Your task to perform on an android device: check storage Image 0: 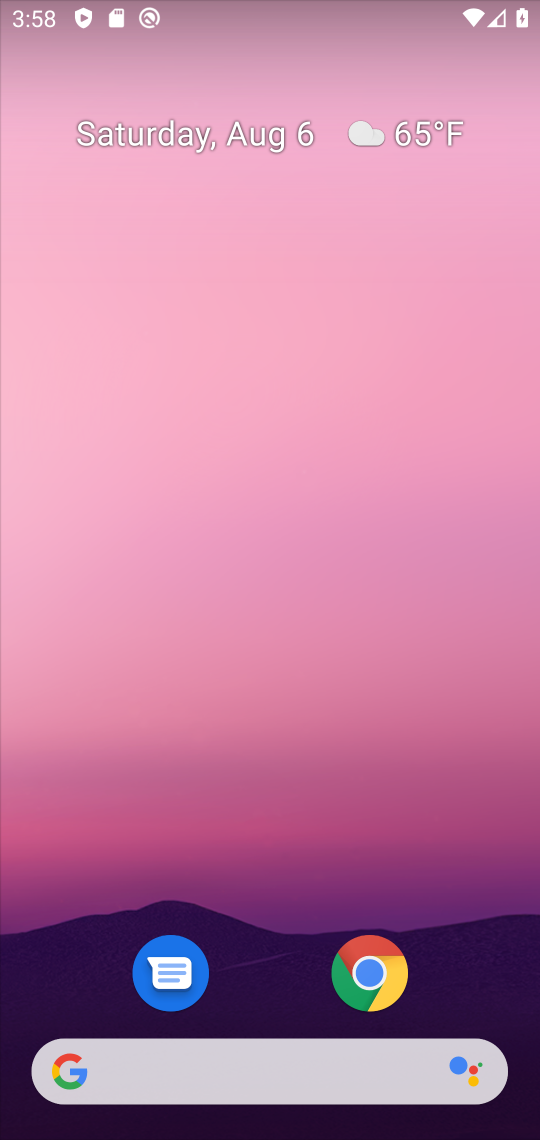
Step 0: press home button
Your task to perform on an android device: check storage Image 1: 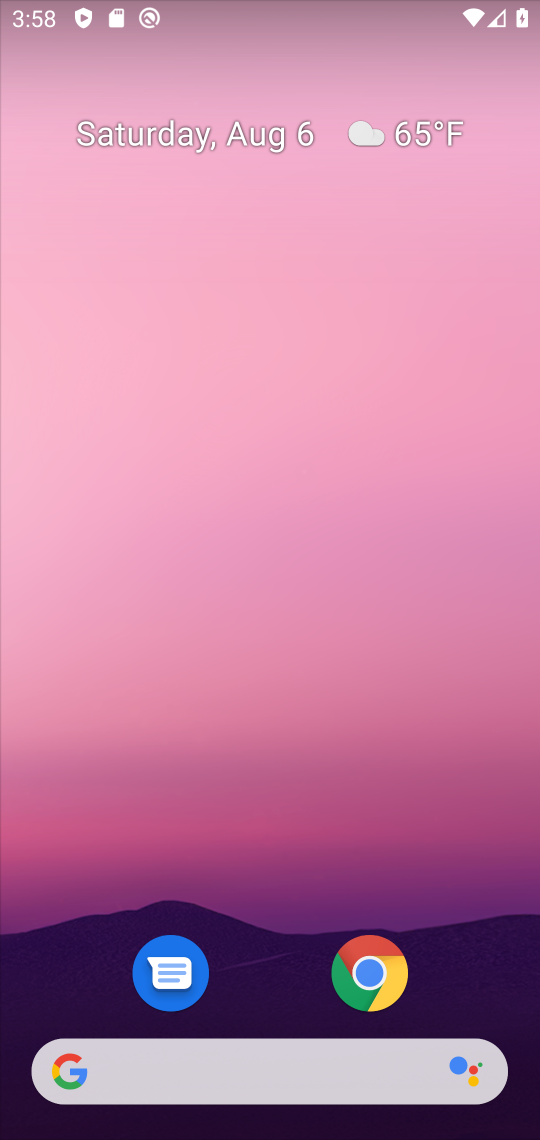
Step 1: drag from (468, 878) to (333, 118)
Your task to perform on an android device: check storage Image 2: 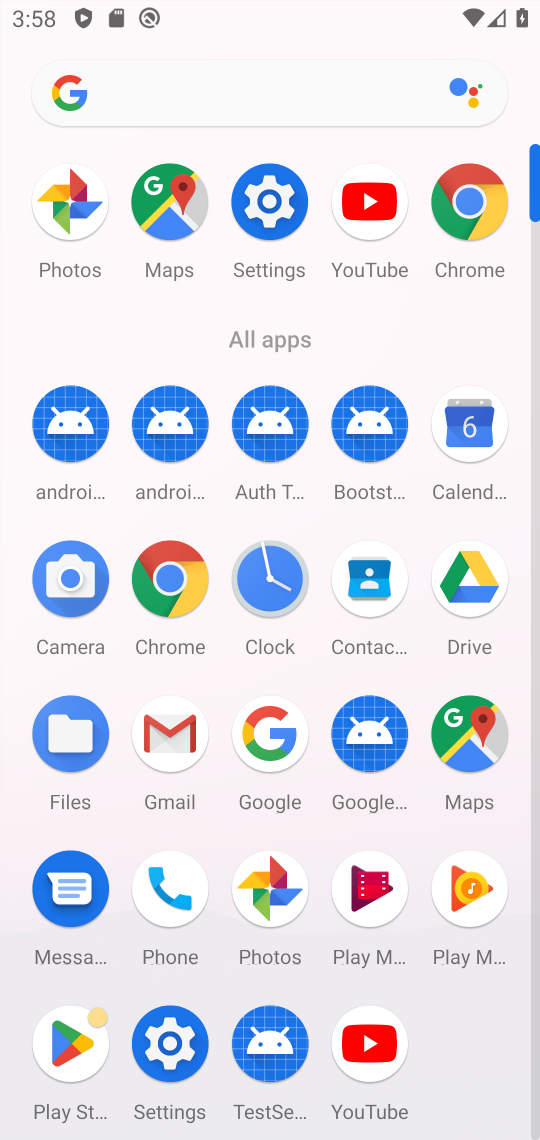
Step 2: click (177, 1024)
Your task to perform on an android device: check storage Image 3: 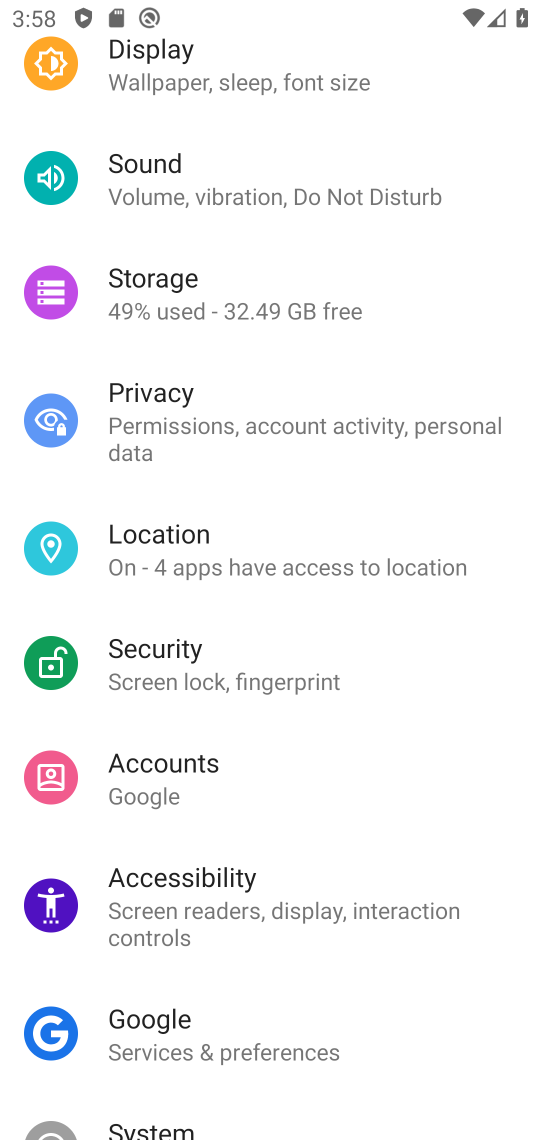
Step 3: click (173, 288)
Your task to perform on an android device: check storage Image 4: 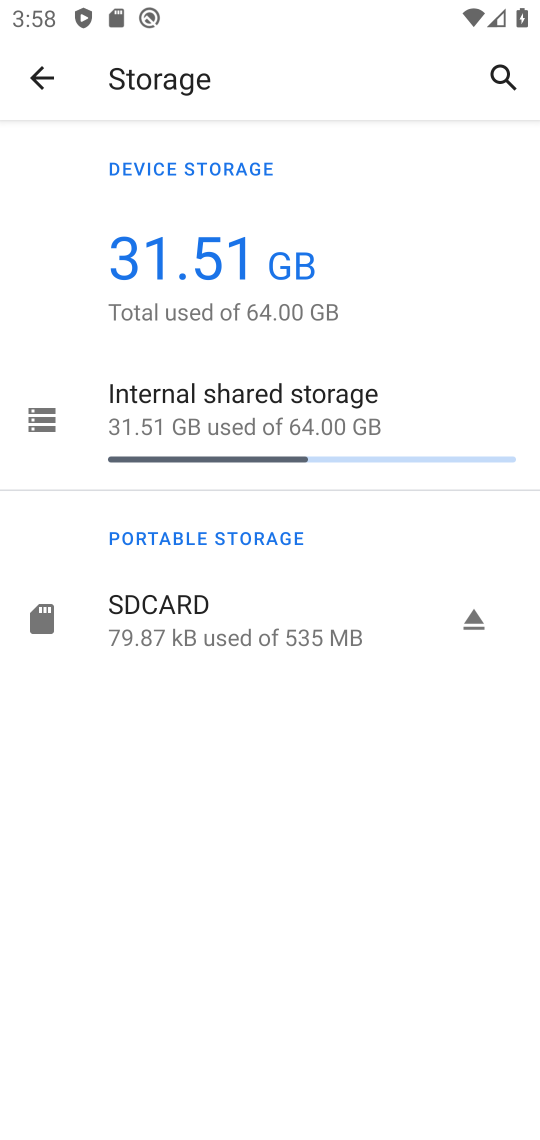
Step 4: task complete